Your task to perform on an android device: manage bookmarks in the chrome app Image 0: 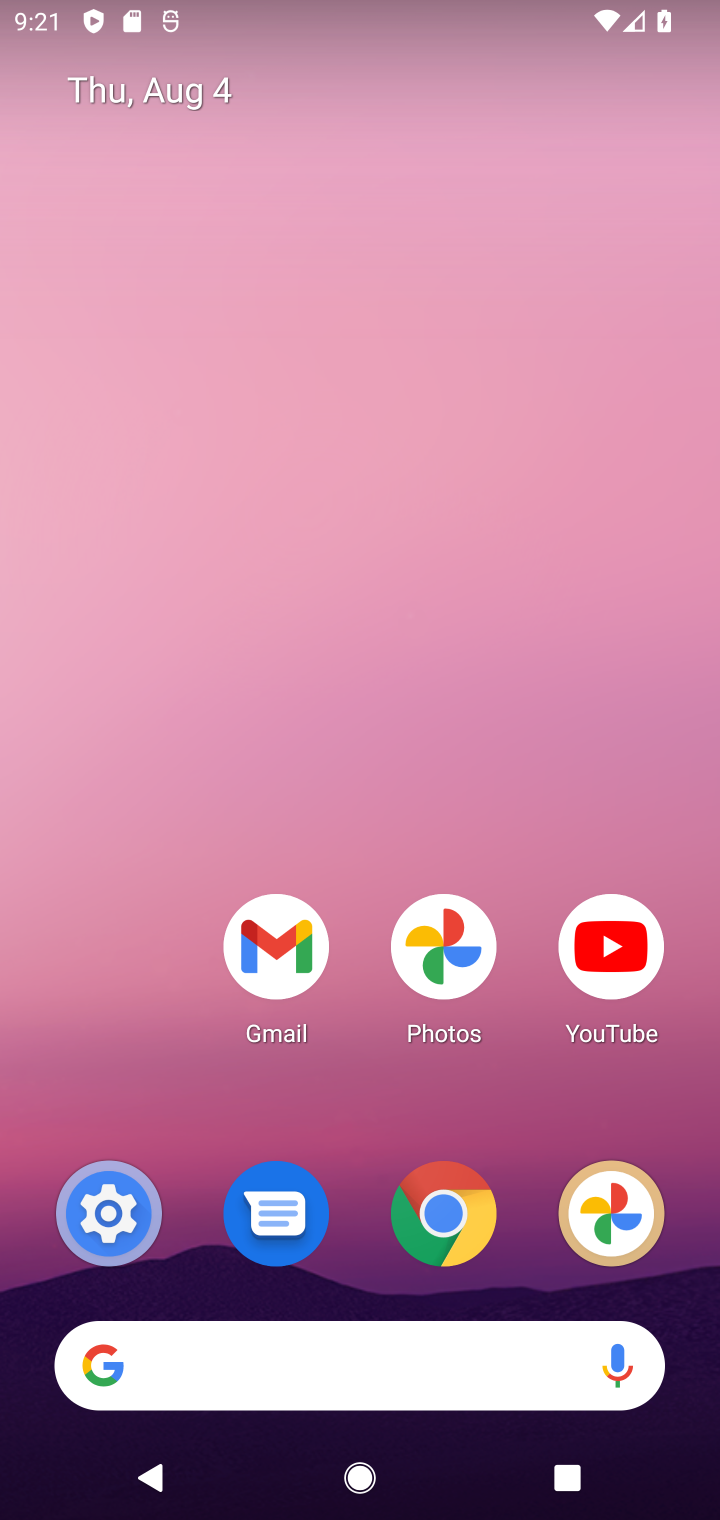
Step 0: click (435, 1202)
Your task to perform on an android device: manage bookmarks in the chrome app Image 1: 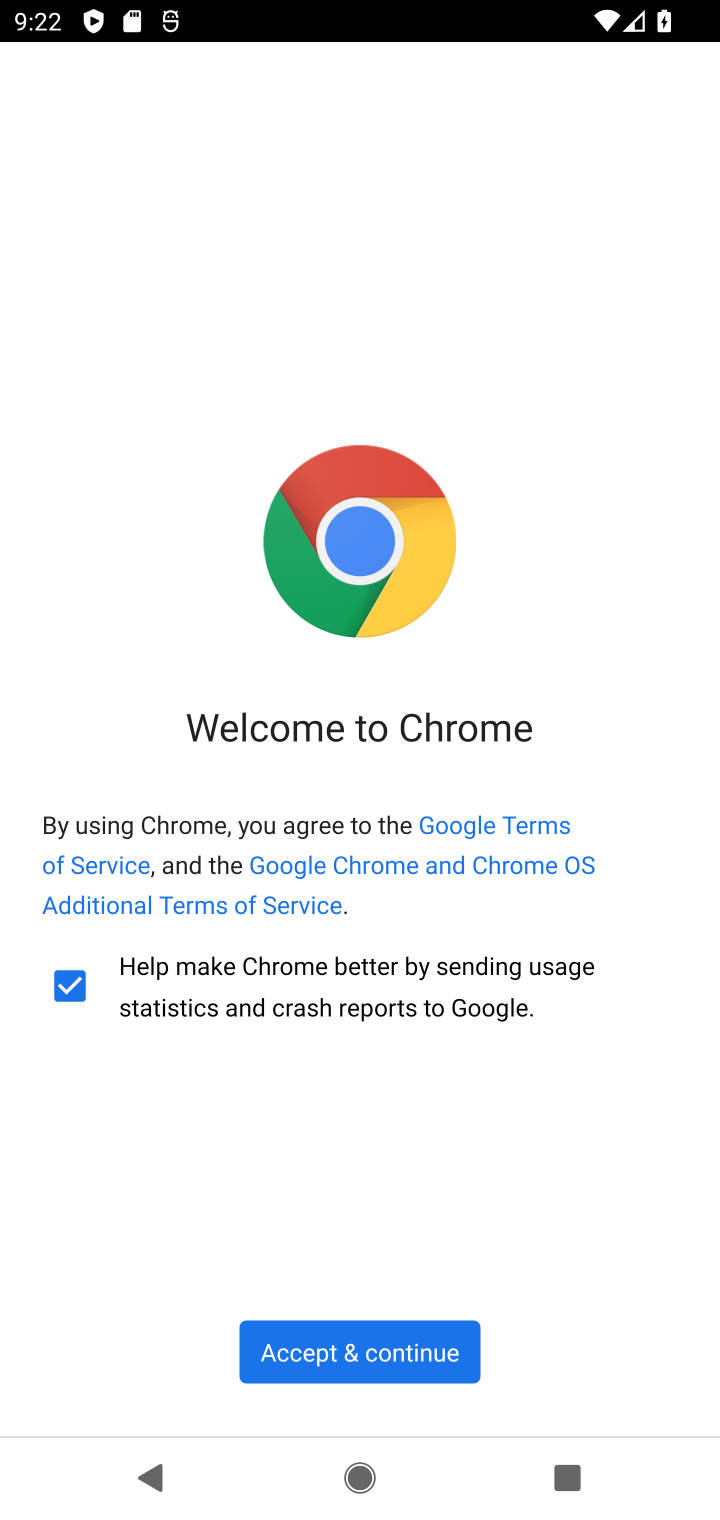
Step 1: click (359, 1350)
Your task to perform on an android device: manage bookmarks in the chrome app Image 2: 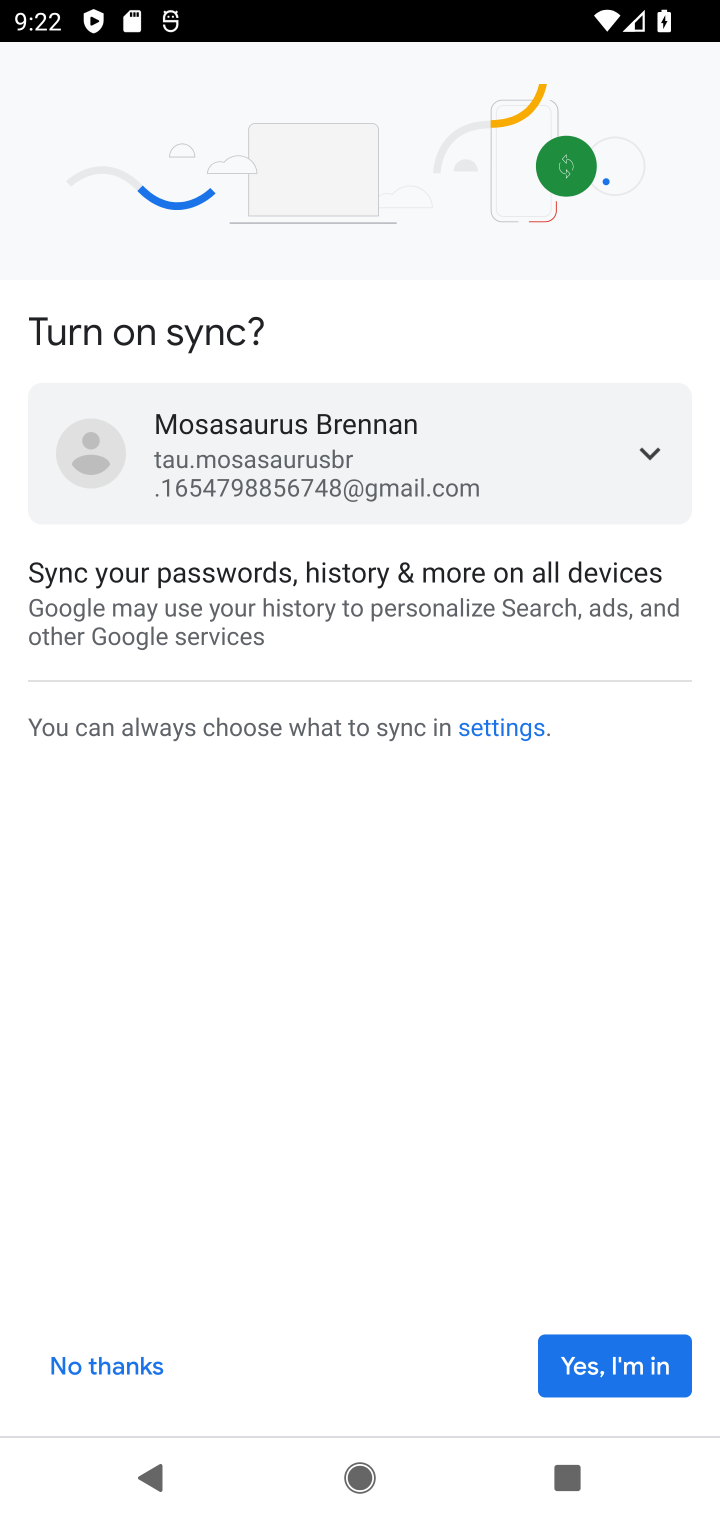
Step 2: click (626, 1348)
Your task to perform on an android device: manage bookmarks in the chrome app Image 3: 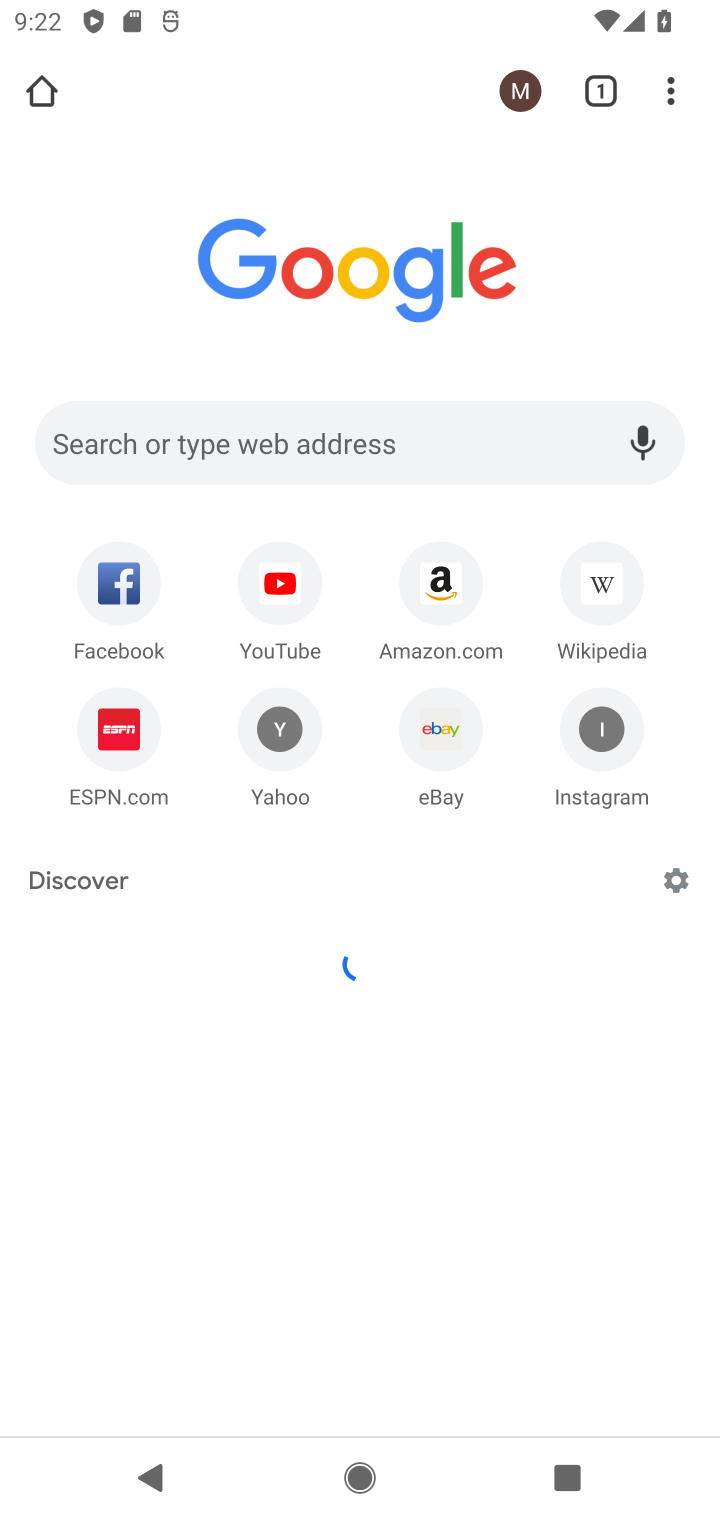
Step 3: click (673, 81)
Your task to perform on an android device: manage bookmarks in the chrome app Image 4: 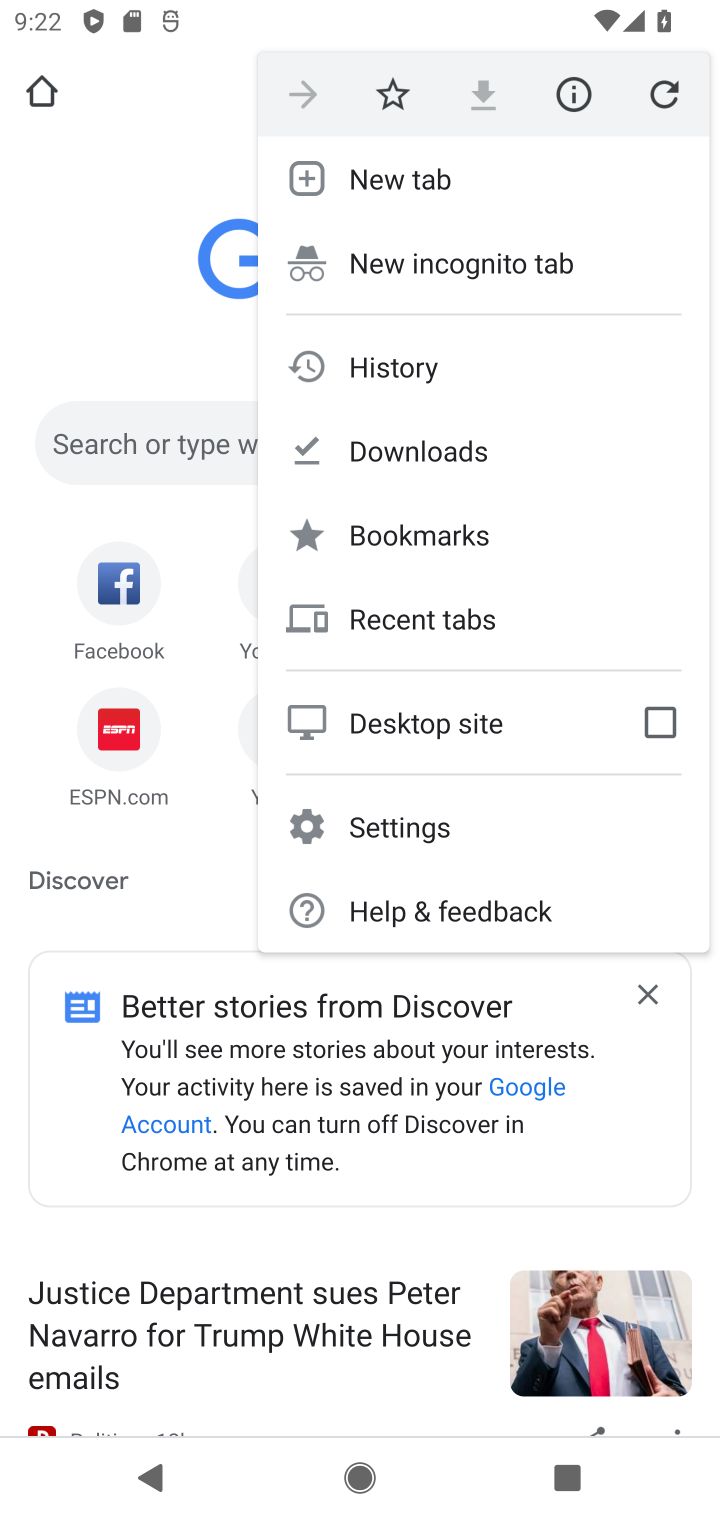
Step 4: click (388, 534)
Your task to perform on an android device: manage bookmarks in the chrome app Image 5: 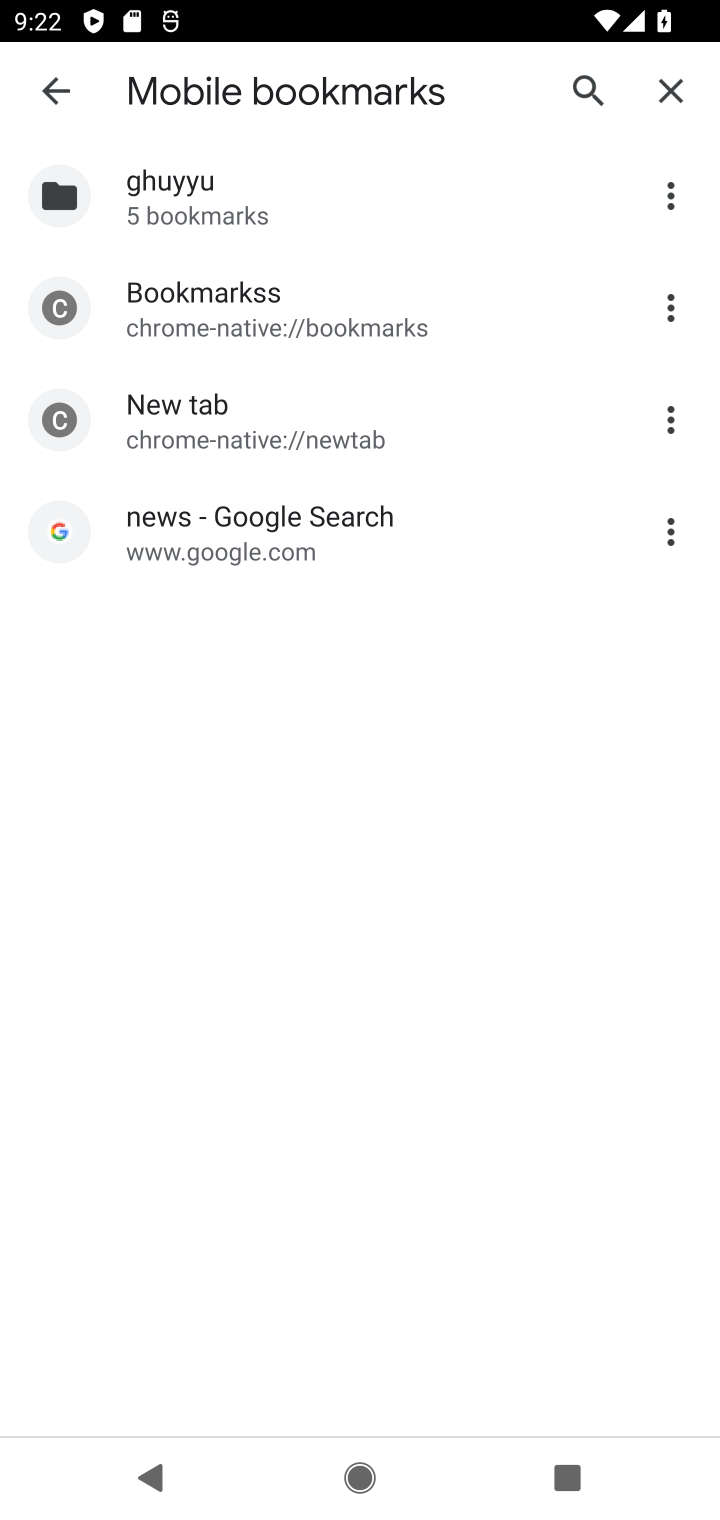
Step 5: task complete